Your task to perform on an android device: check google app version Image 0: 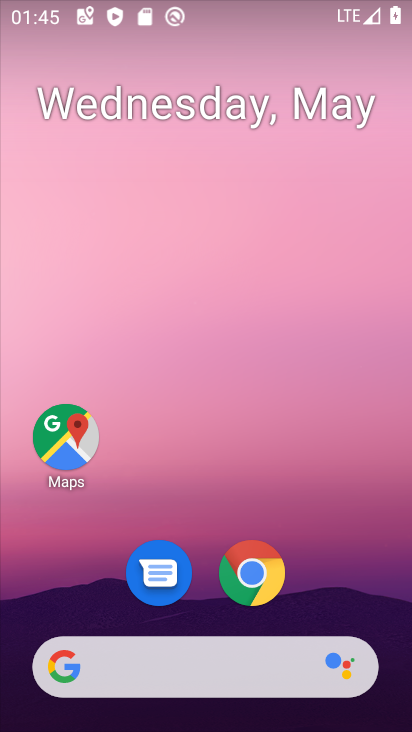
Step 0: drag from (305, 586) to (265, 277)
Your task to perform on an android device: check google app version Image 1: 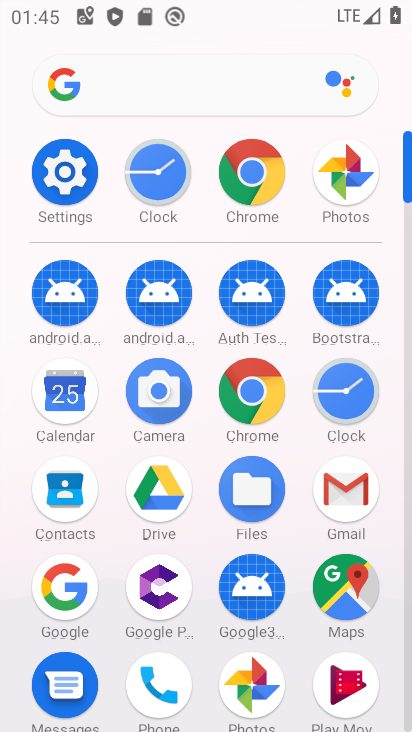
Step 1: click (66, 592)
Your task to perform on an android device: check google app version Image 2: 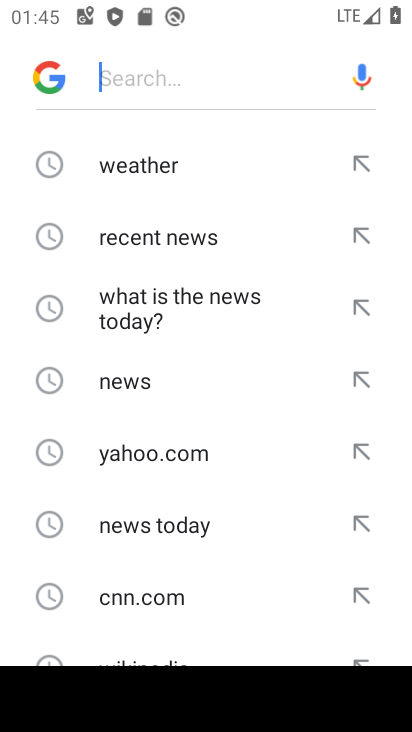
Step 2: click (34, 78)
Your task to perform on an android device: check google app version Image 3: 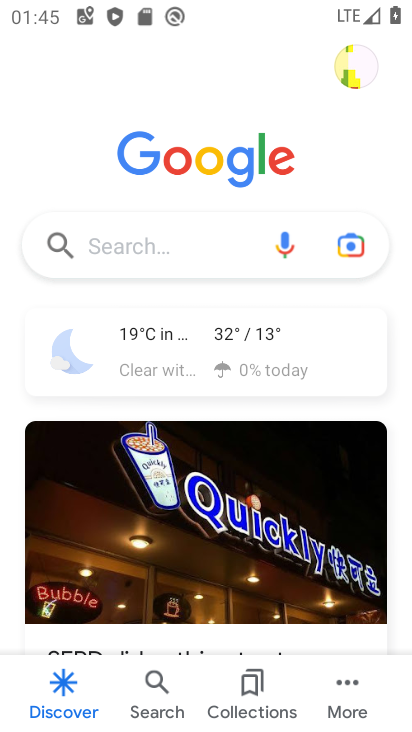
Step 3: click (328, 680)
Your task to perform on an android device: check google app version Image 4: 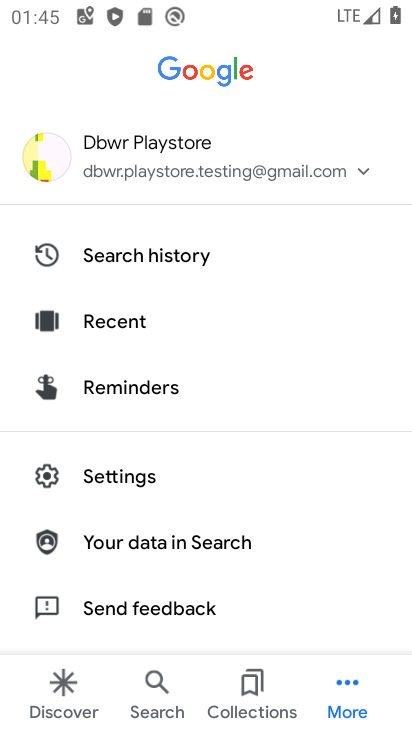
Step 4: click (123, 465)
Your task to perform on an android device: check google app version Image 5: 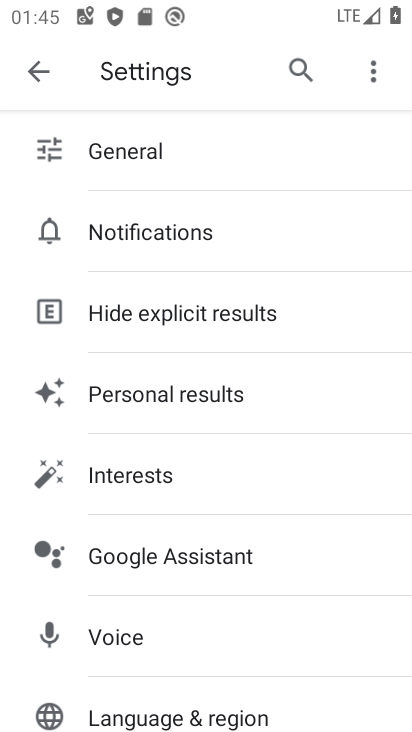
Step 5: task complete